Your task to perform on an android device: turn off airplane mode Image 0: 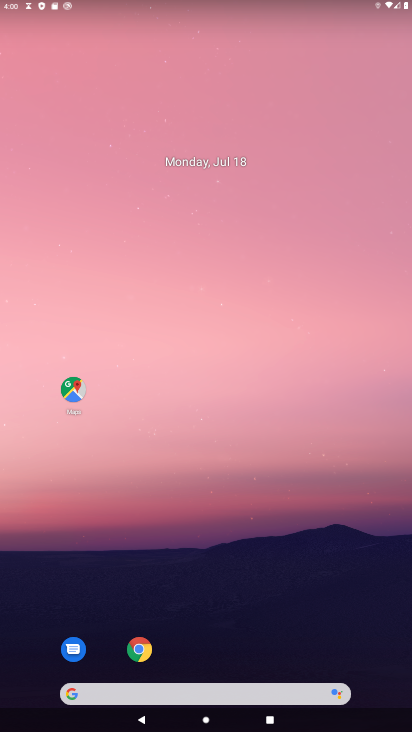
Step 0: press home button
Your task to perform on an android device: turn off airplane mode Image 1: 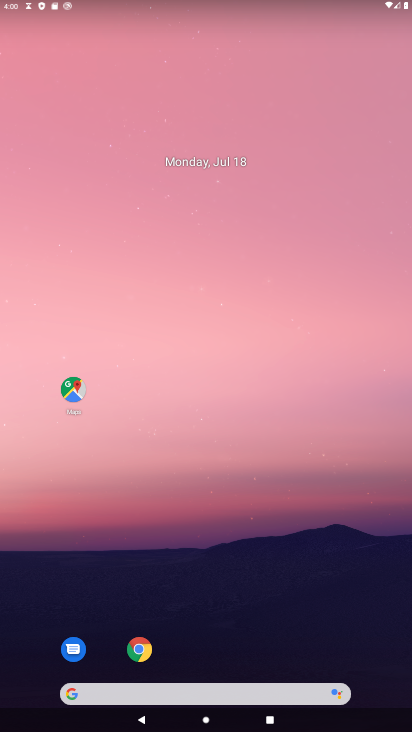
Step 1: task complete